Your task to perform on an android device: open app "Facebook" Image 0: 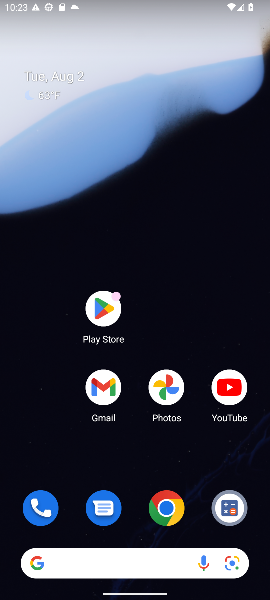
Step 0: click (102, 299)
Your task to perform on an android device: open app "Facebook" Image 1: 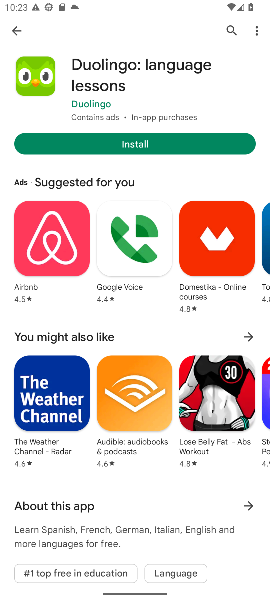
Step 1: click (227, 26)
Your task to perform on an android device: open app "Facebook" Image 2: 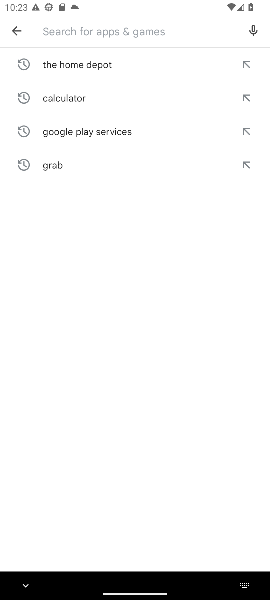
Step 2: type "Facebook"
Your task to perform on an android device: open app "Facebook" Image 3: 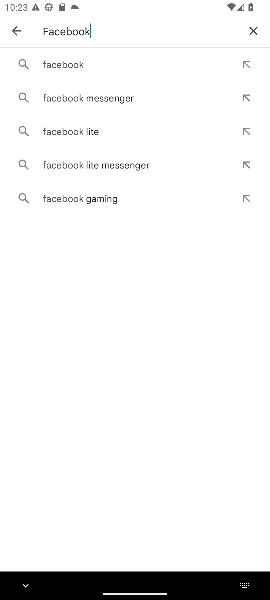
Step 3: click (64, 68)
Your task to perform on an android device: open app "Facebook" Image 4: 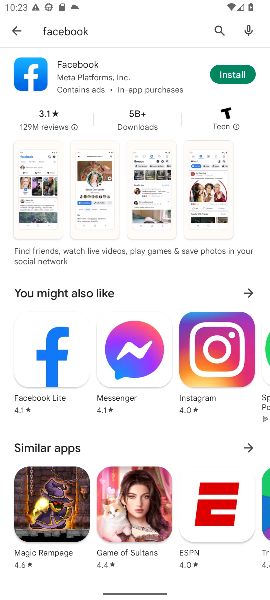
Step 4: click (237, 73)
Your task to perform on an android device: open app "Facebook" Image 5: 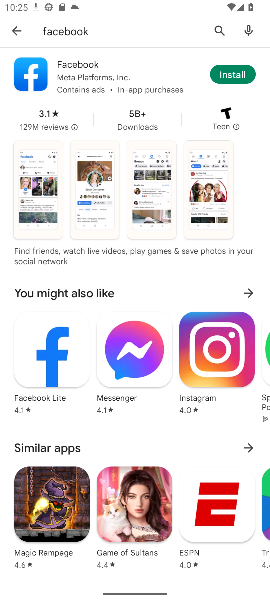
Step 5: task complete